Your task to perform on an android device: turn off airplane mode Image 0: 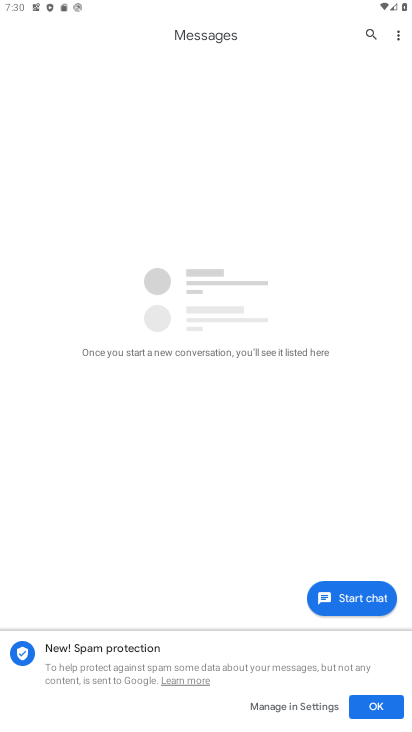
Step 0: press home button
Your task to perform on an android device: turn off airplane mode Image 1: 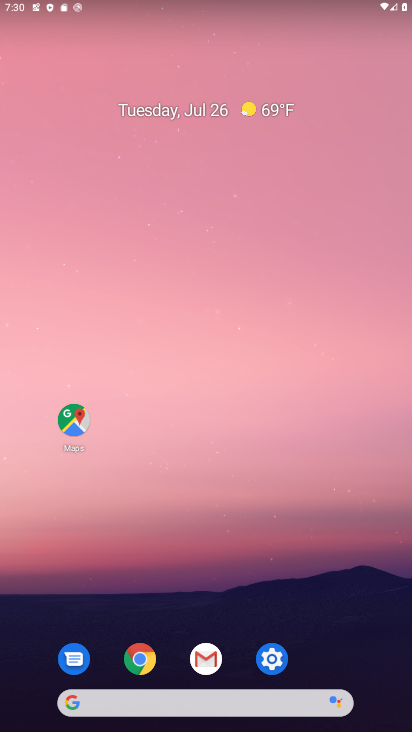
Step 1: click (279, 652)
Your task to perform on an android device: turn off airplane mode Image 2: 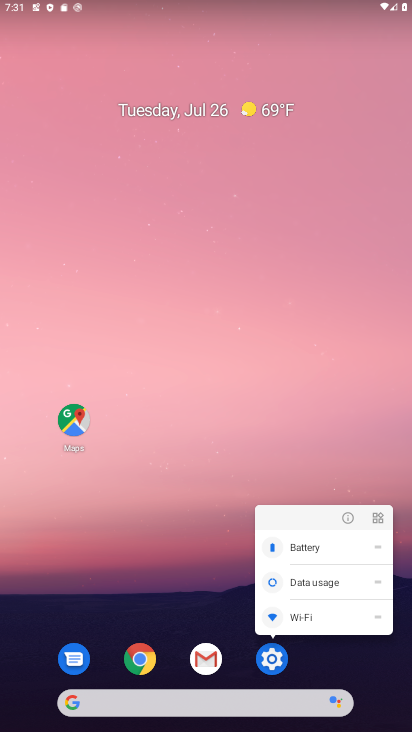
Step 2: click (273, 658)
Your task to perform on an android device: turn off airplane mode Image 3: 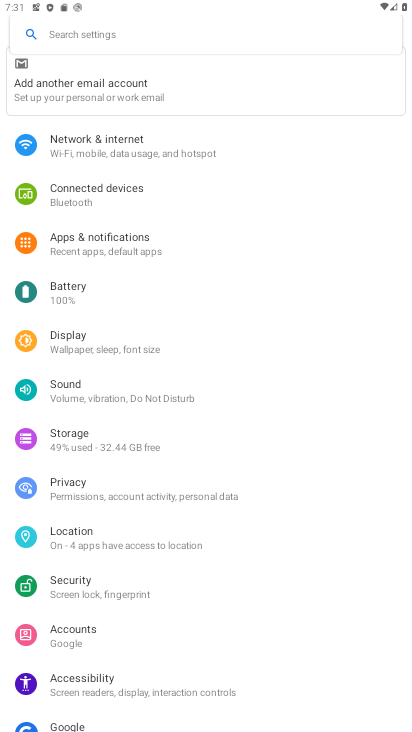
Step 3: click (114, 152)
Your task to perform on an android device: turn off airplane mode Image 4: 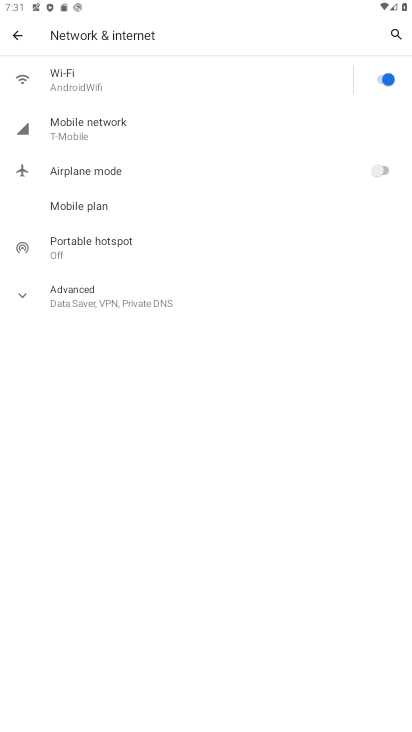
Step 4: click (168, 167)
Your task to perform on an android device: turn off airplane mode Image 5: 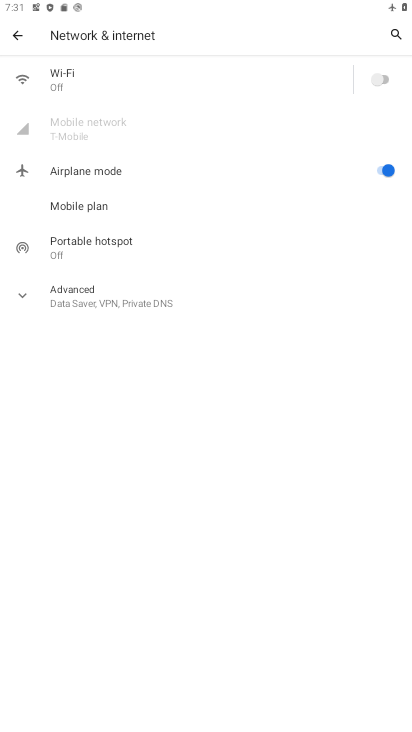
Step 5: click (168, 167)
Your task to perform on an android device: turn off airplane mode Image 6: 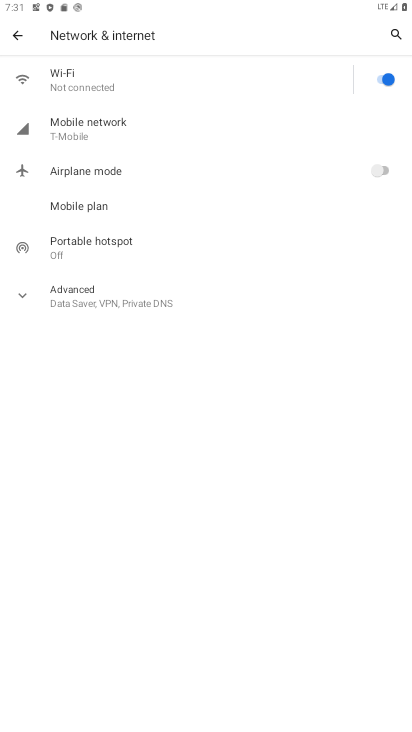
Step 6: task complete